Your task to perform on an android device: see sites visited before in the chrome app Image 0: 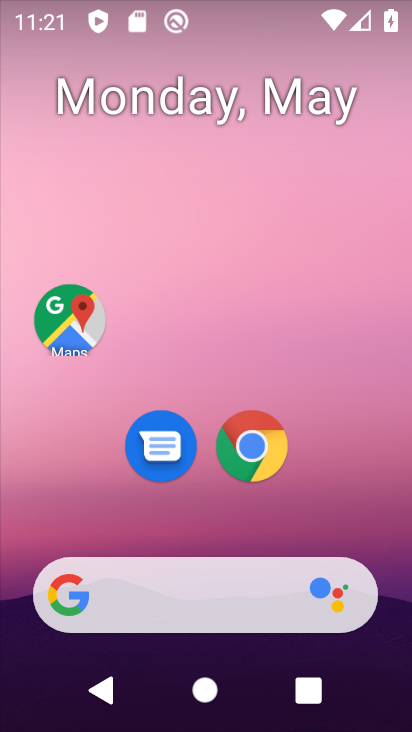
Step 0: click (248, 447)
Your task to perform on an android device: see sites visited before in the chrome app Image 1: 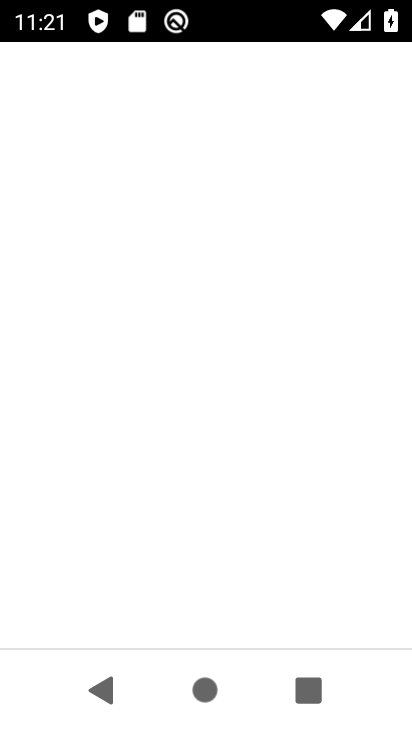
Step 1: click (255, 451)
Your task to perform on an android device: see sites visited before in the chrome app Image 2: 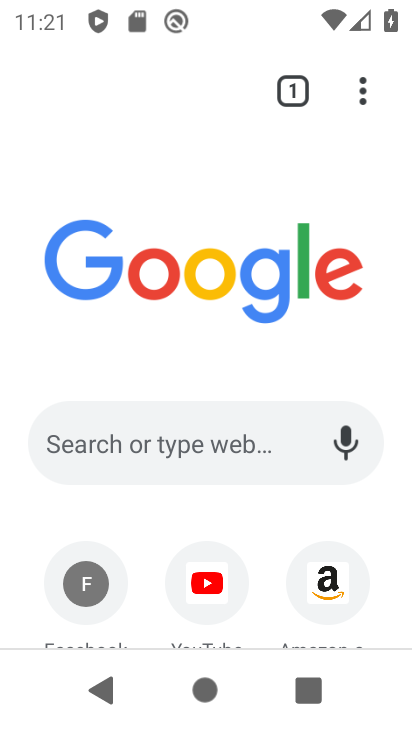
Step 2: click (360, 84)
Your task to perform on an android device: see sites visited before in the chrome app Image 3: 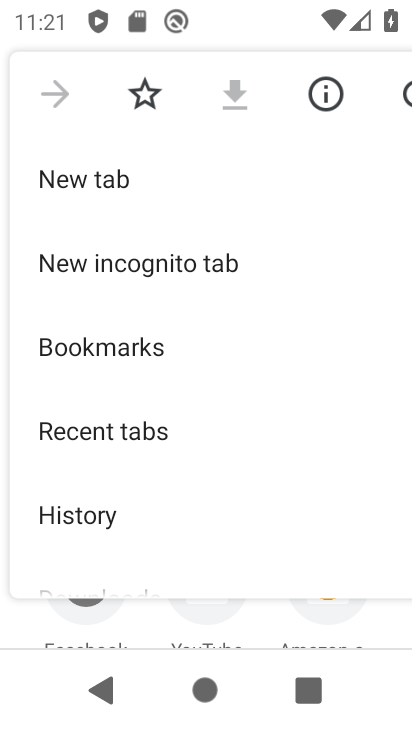
Step 3: click (83, 511)
Your task to perform on an android device: see sites visited before in the chrome app Image 4: 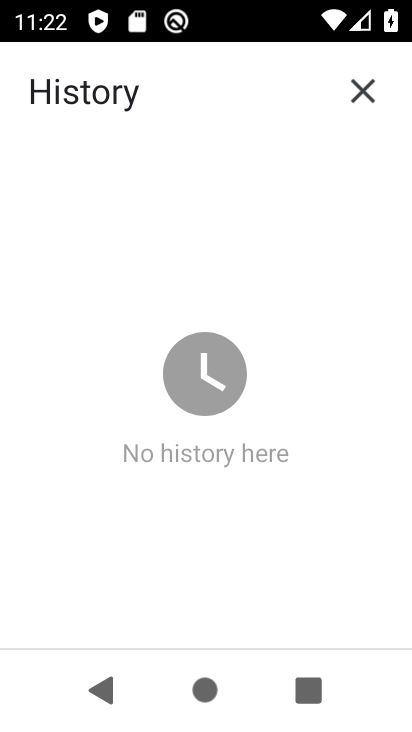
Step 4: task complete